Your task to perform on an android device: Open calendar and show me the second week of next month Image 0: 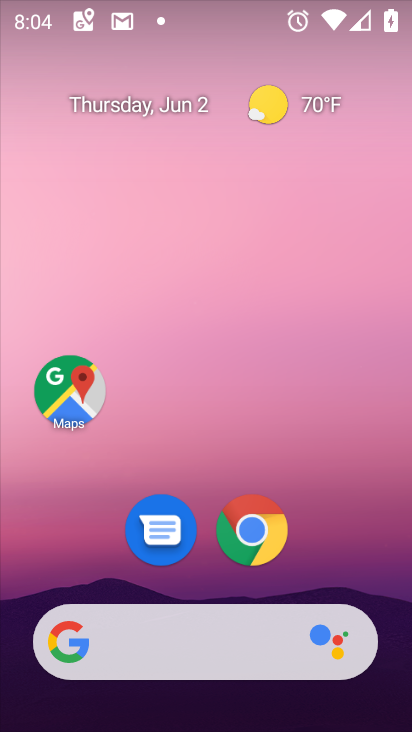
Step 0: drag from (210, 536) to (242, 224)
Your task to perform on an android device: Open calendar and show me the second week of next month Image 1: 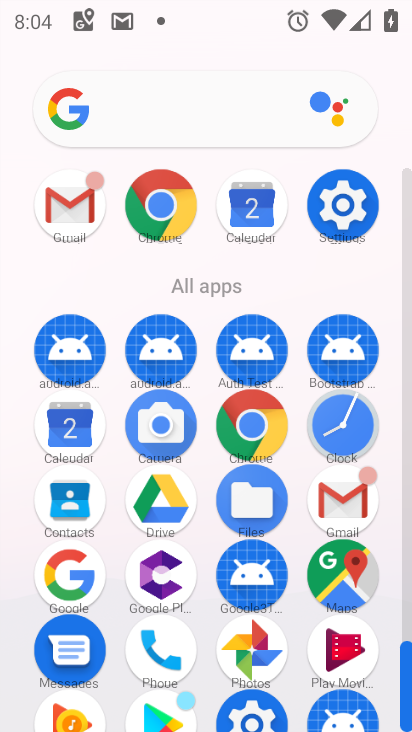
Step 1: click (259, 223)
Your task to perform on an android device: Open calendar and show me the second week of next month Image 2: 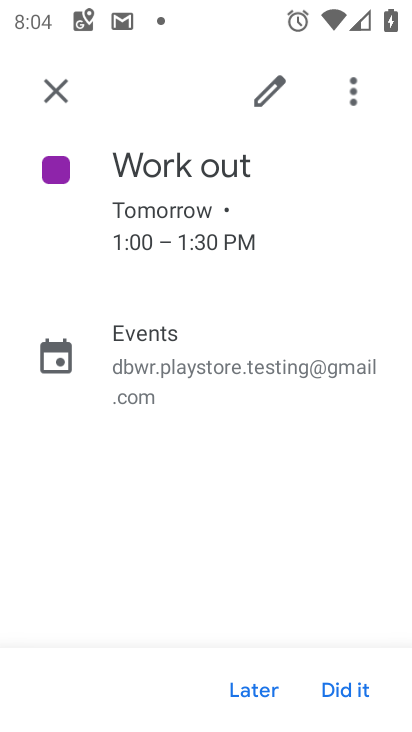
Step 2: click (60, 89)
Your task to perform on an android device: Open calendar and show me the second week of next month Image 3: 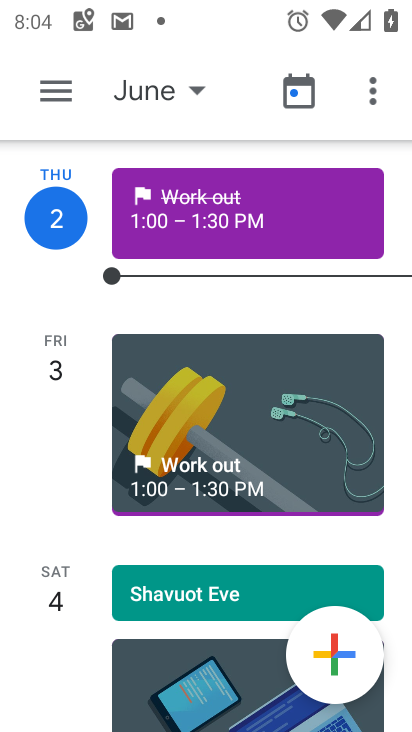
Step 3: click (157, 91)
Your task to perform on an android device: Open calendar and show me the second week of next month Image 4: 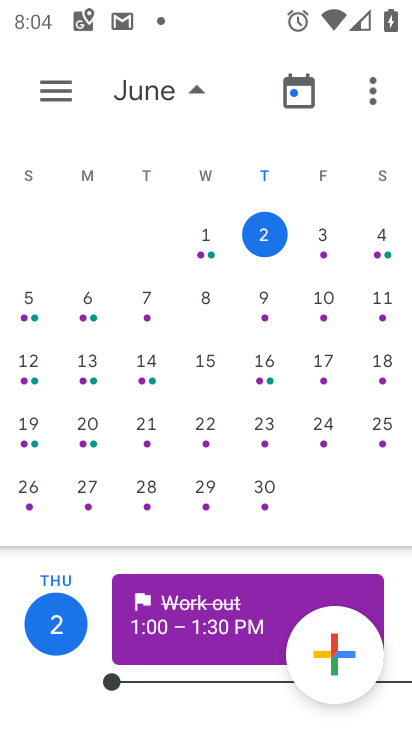
Step 4: drag from (402, 320) to (2, 352)
Your task to perform on an android device: Open calendar and show me the second week of next month Image 5: 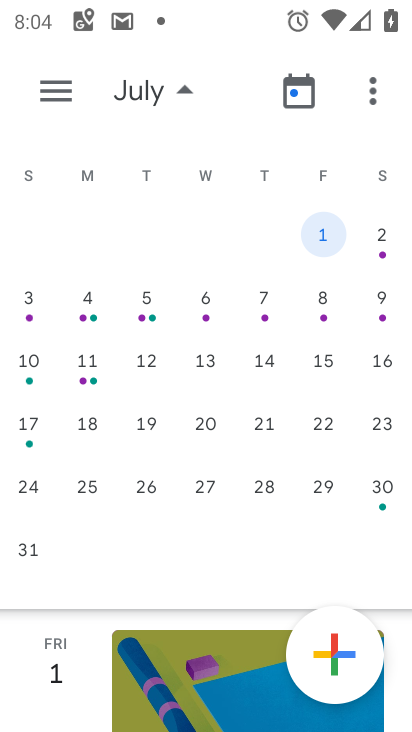
Step 5: click (24, 301)
Your task to perform on an android device: Open calendar and show me the second week of next month Image 6: 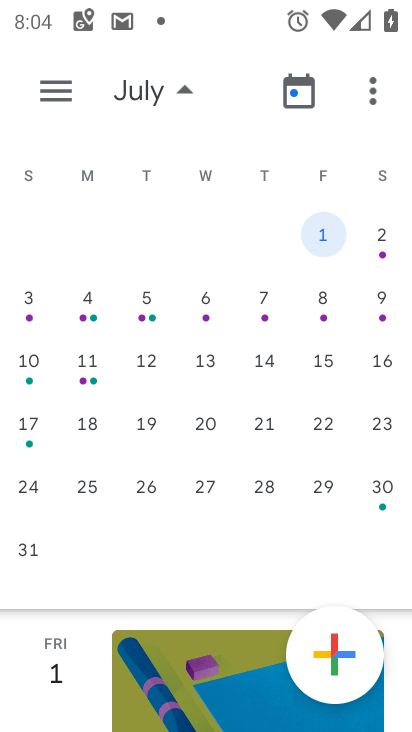
Step 6: click (36, 296)
Your task to perform on an android device: Open calendar and show me the second week of next month Image 7: 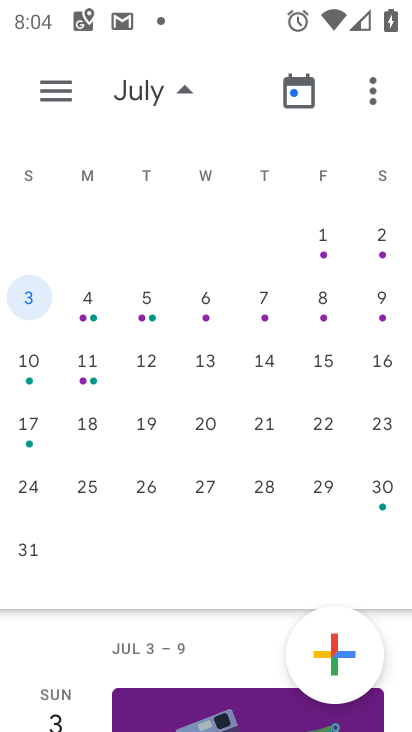
Step 7: task complete